Your task to perform on an android device: When is my next appointment? Image 0: 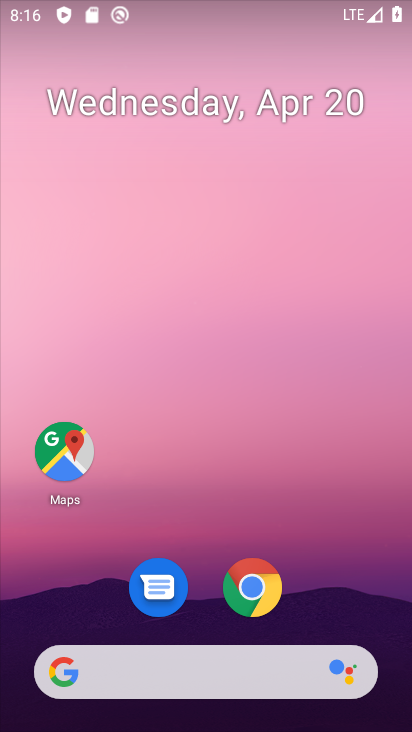
Step 0: drag from (357, 605) to (355, 224)
Your task to perform on an android device: When is my next appointment? Image 1: 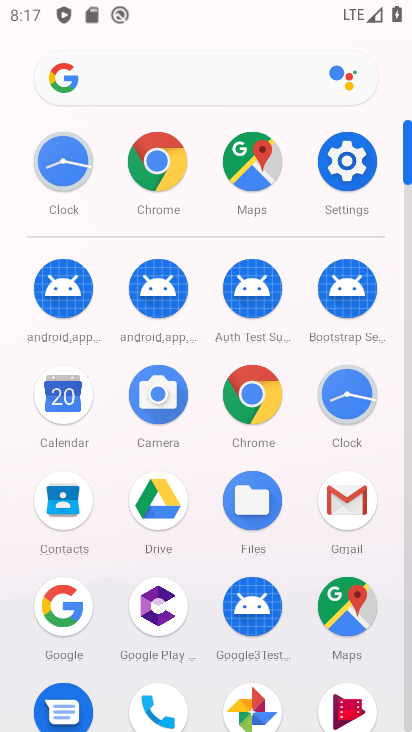
Step 1: click (73, 410)
Your task to perform on an android device: When is my next appointment? Image 2: 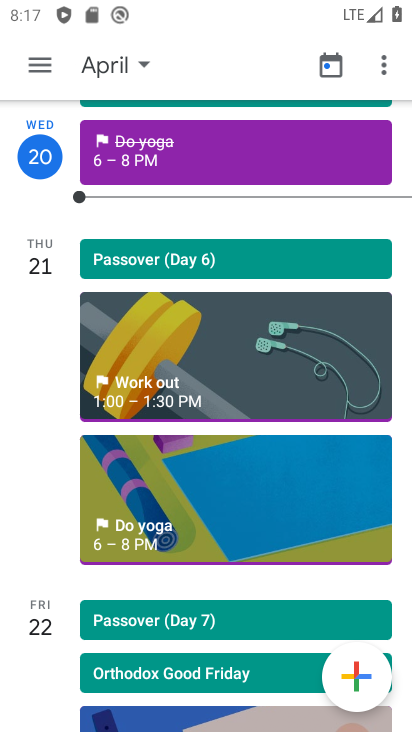
Step 2: click (192, 375)
Your task to perform on an android device: When is my next appointment? Image 3: 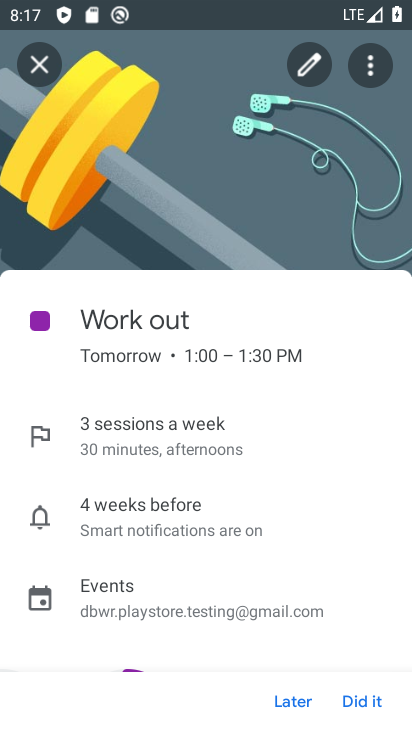
Step 3: task complete